Your task to perform on an android device: Search for seafood restaurants on Google Maps Image 0: 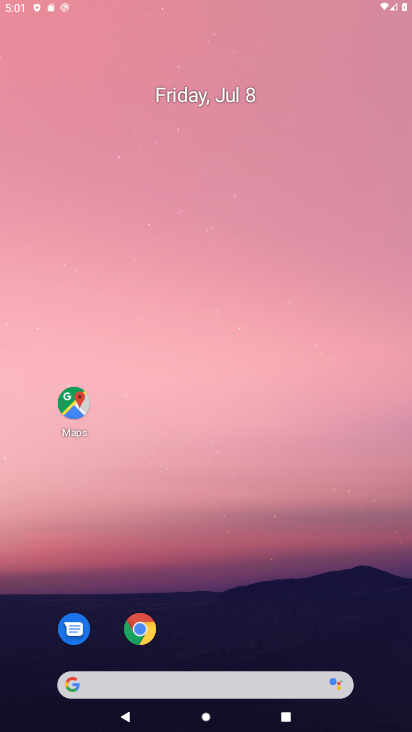
Step 0: press home button
Your task to perform on an android device: Search for seafood restaurants on Google Maps Image 1: 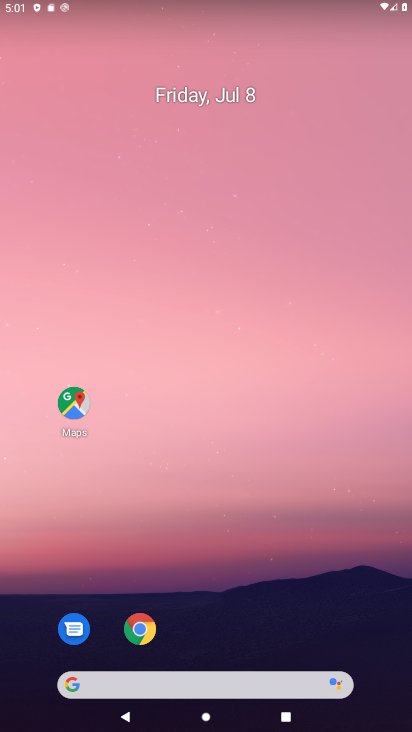
Step 1: click (71, 405)
Your task to perform on an android device: Search for seafood restaurants on Google Maps Image 2: 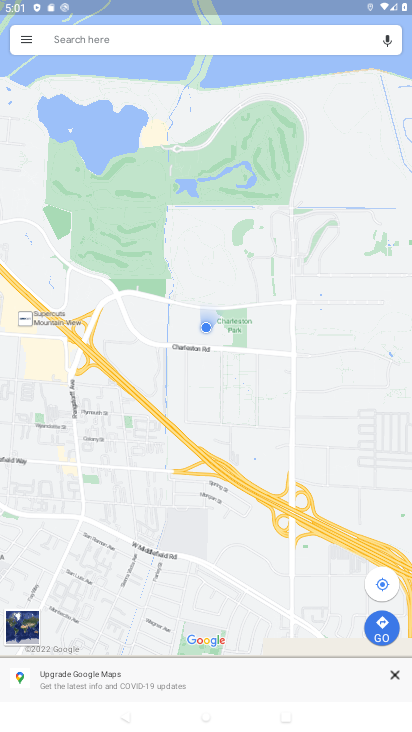
Step 2: click (99, 40)
Your task to perform on an android device: Search for seafood restaurants on Google Maps Image 3: 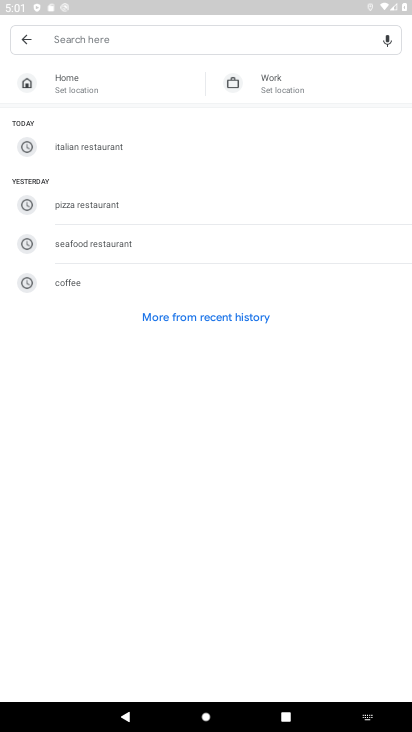
Step 3: click (97, 245)
Your task to perform on an android device: Search for seafood restaurants on Google Maps Image 4: 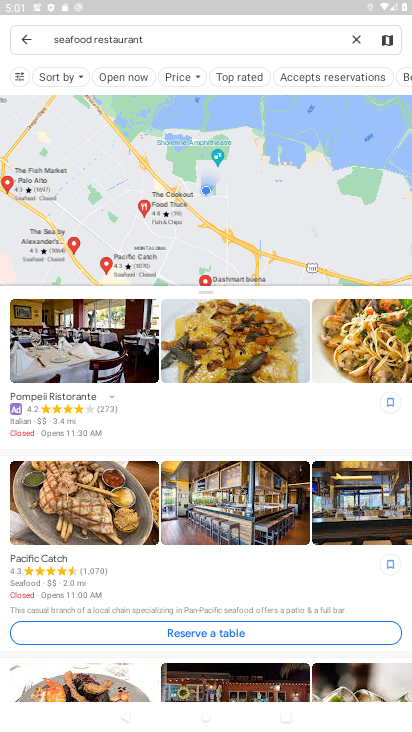
Step 4: task complete